Your task to perform on an android device: move an email to a new category in the gmail app Image 0: 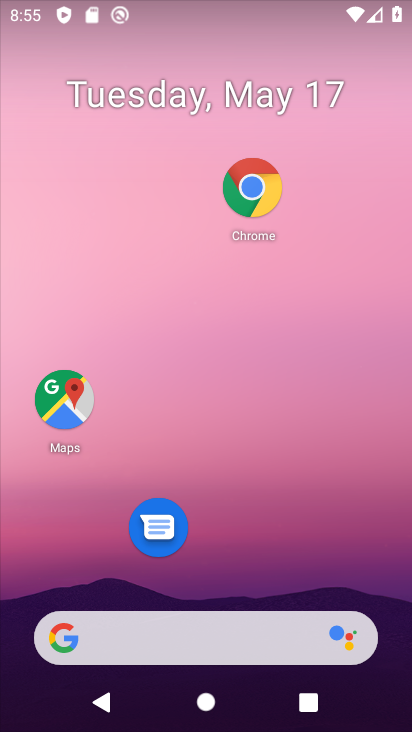
Step 0: drag from (257, 566) to (259, 132)
Your task to perform on an android device: move an email to a new category in the gmail app Image 1: 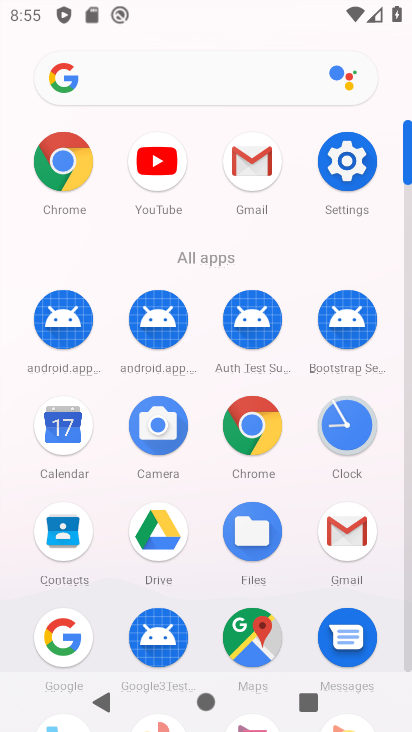
Step 1: click (253, 184)
Your task to perform on an android device: move an email to a new category in the gmail app Image 2: 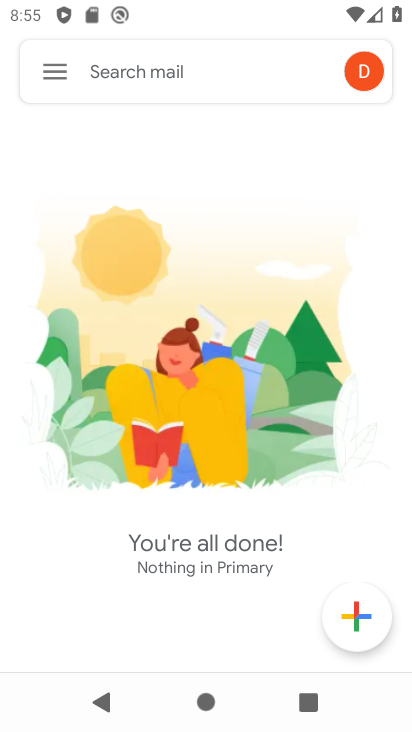
Step 2: click (67, 62)
Your task to perform on an android device: move an email to a new category in the gmail app Image 3: 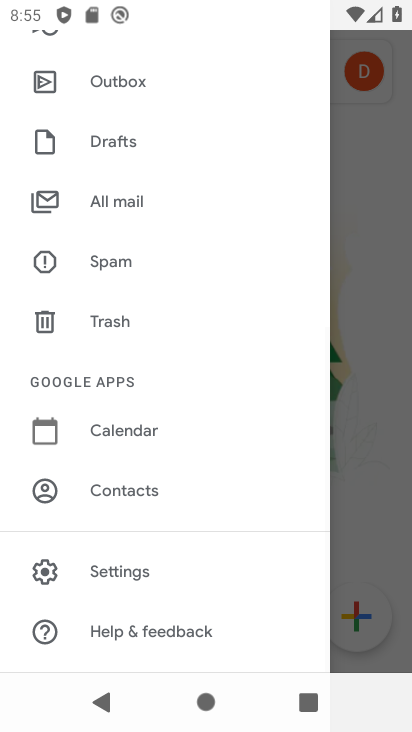
Step 3: click (125, 565)
Your task to perform on an android device: move an email to a new category in the gmail app Image 4: 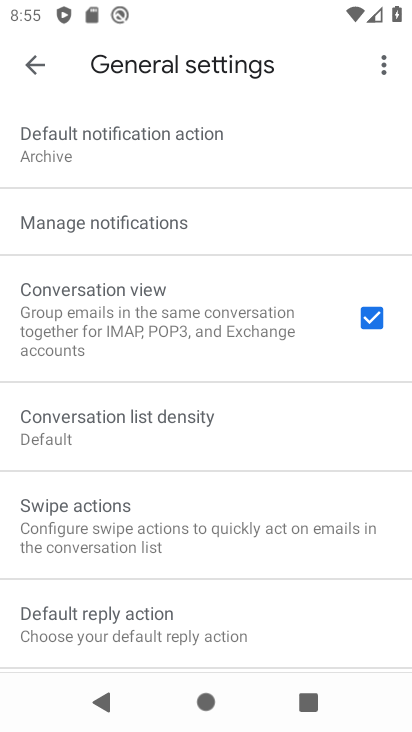
Step 4: task complete